Your task to perform on an android device: Is it going to rain tomorrow? Image 0: 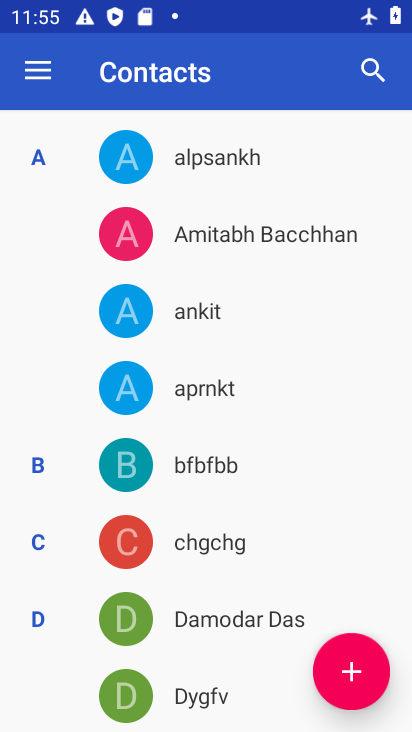
Step 0: press home button
Your task to perform on an android device: Is it going to rain tomorrow? Image 1: 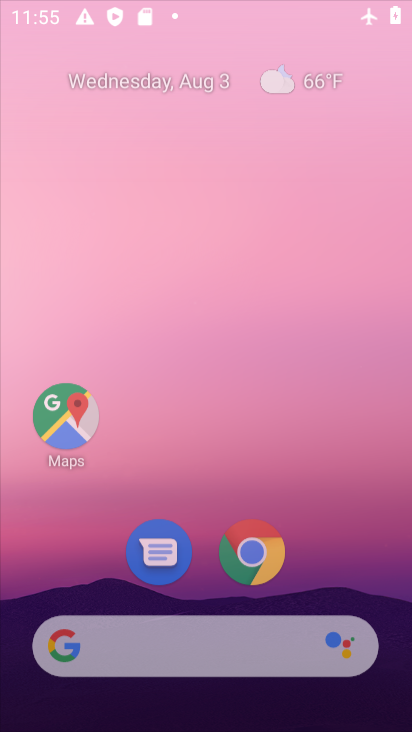
Step 1: press home button
Your task to perform on an android device: Is it going to rain tomorrow? Image 2: 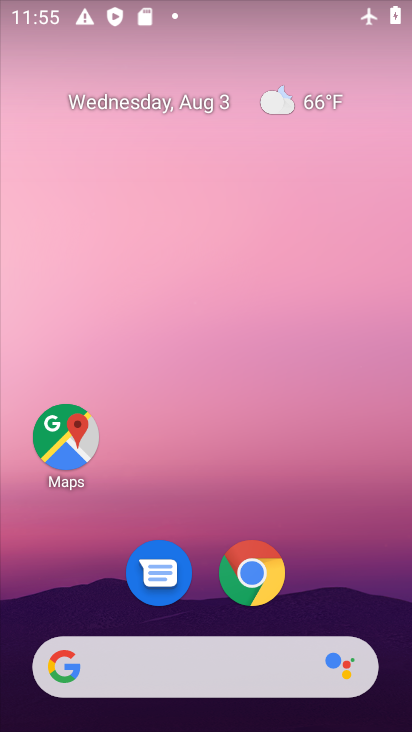
Step 2: drag from (357, 573) to (245, 495)
Your task to perform on an android device: Is it going to rain tomorrow? Image 3: 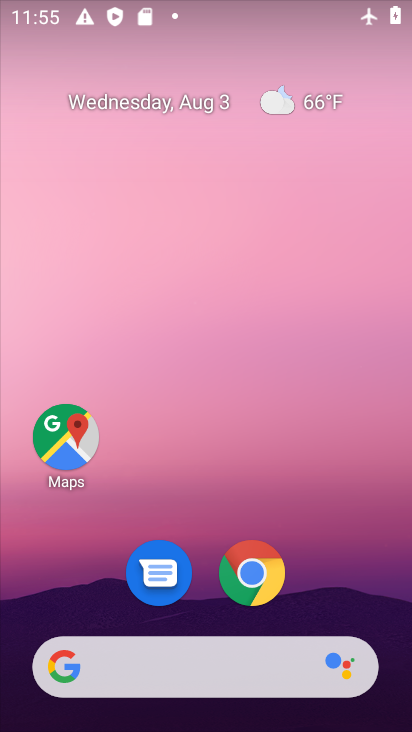
Step 3: click (313, 111)
Your task to perform on an android device: Is it going to rain tomorrow? Image 4: 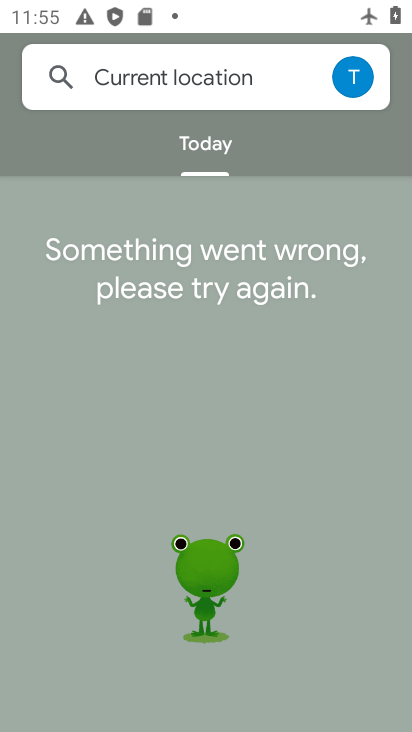
Step 4: task complete